Your task to perform on an android device: toggle notifications settings in the gmail app Image 0: 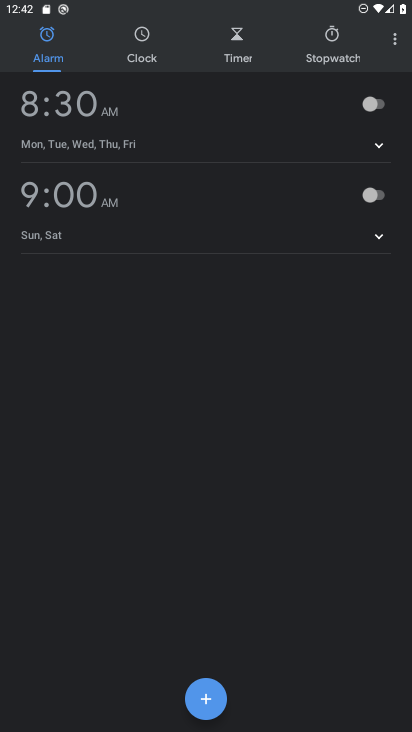
Step 0: press home button
Your task to perform on an android device: toggle notifications settings in the gmail app Image 1: 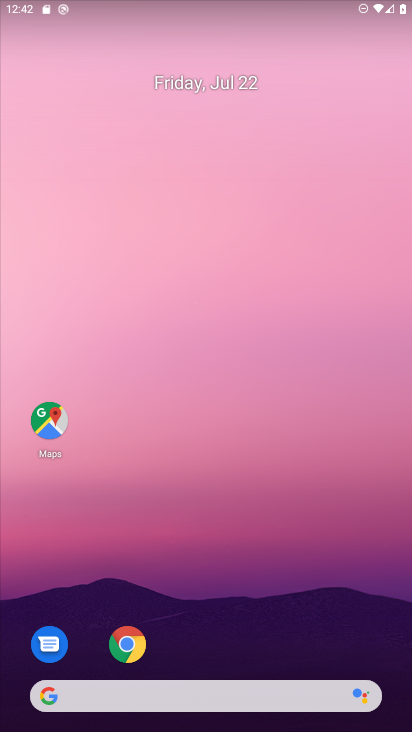
Step 1: drag from (212, 622) to (221, 146)
Your task to perform on an android device: toggle notifications settings in the gmail app Image 2: 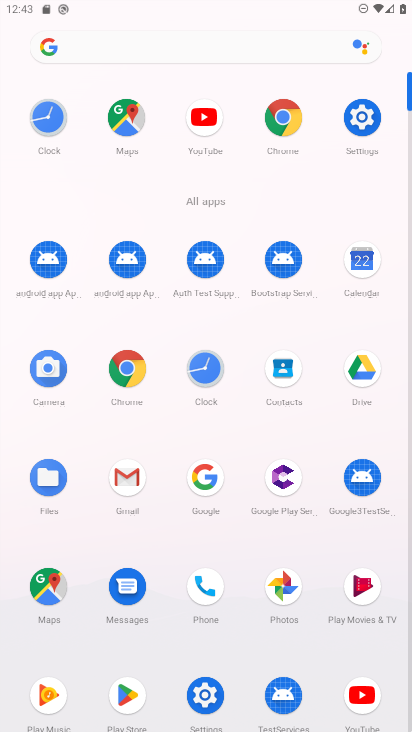
Step 2: click (127, 473)
Your task to perform on an android device: toggle notifications settings in the gmail app Image 3: 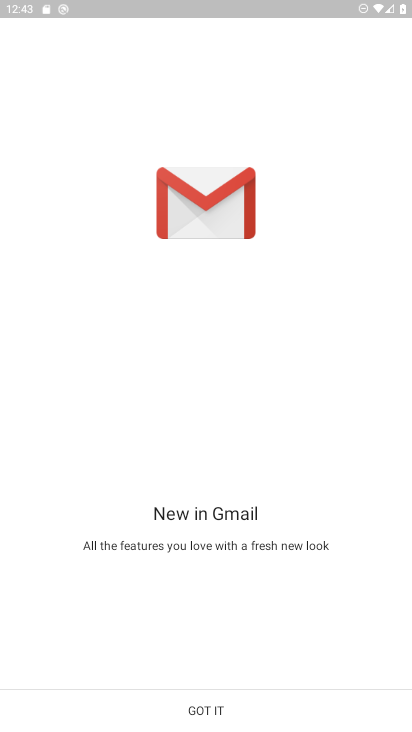
Step 3: click (257, 720)
Your task to perform on an android device: toggle notifications settings in the gmail app Image 4: 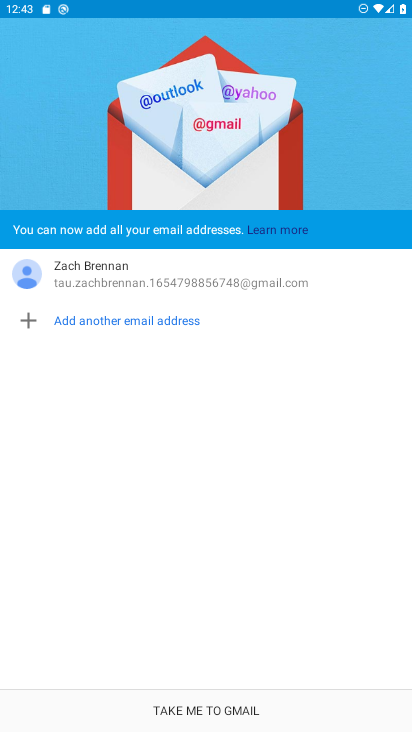
Step 4: click (257, 720)
Your task to perform on an android device: toggle notifications settings in the gmail app Image 5: 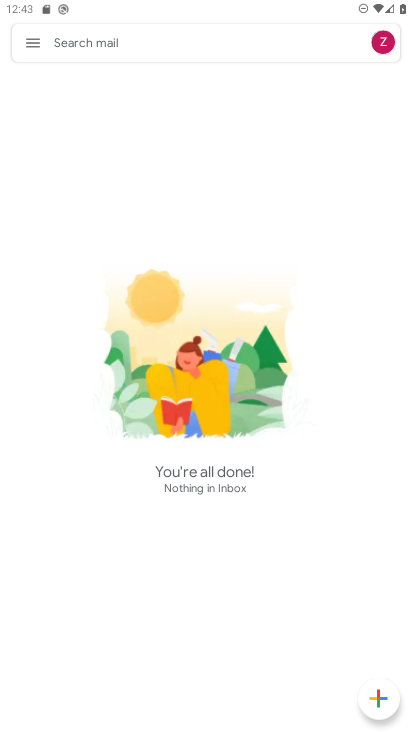
Step 5: click (31, 50)
Your task to perform on an android device: toggle notifications settings in the gmail app Image 6: 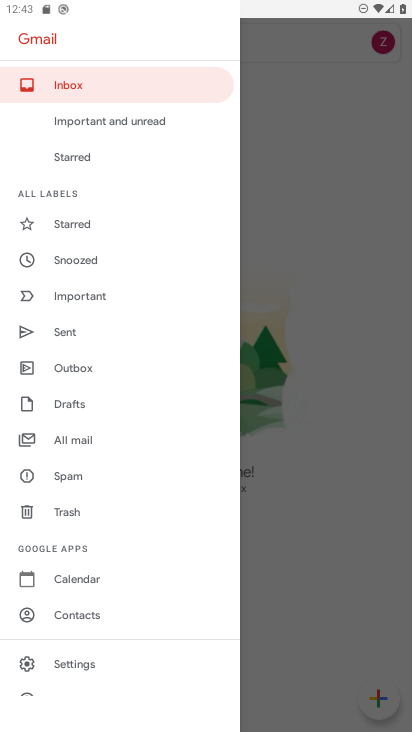
Step 6: click (92, 659)
Your task to perform on an android device: toggle notifications settings in the gmail app Image 7: 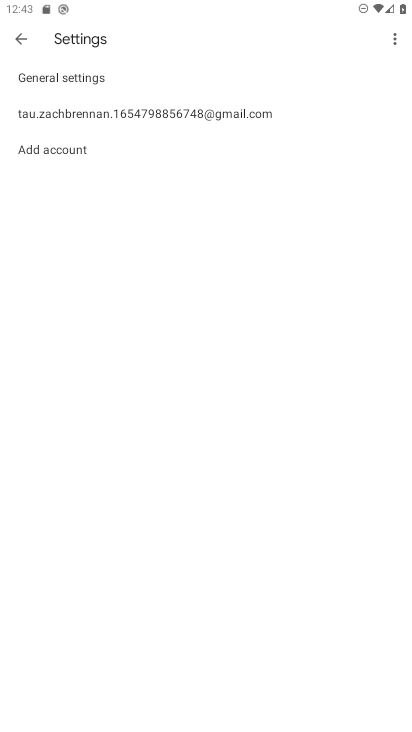
Step 7: click (243, 113)
Your task to perform on an android device: toggle notifications settings in the gmail app Image 8: 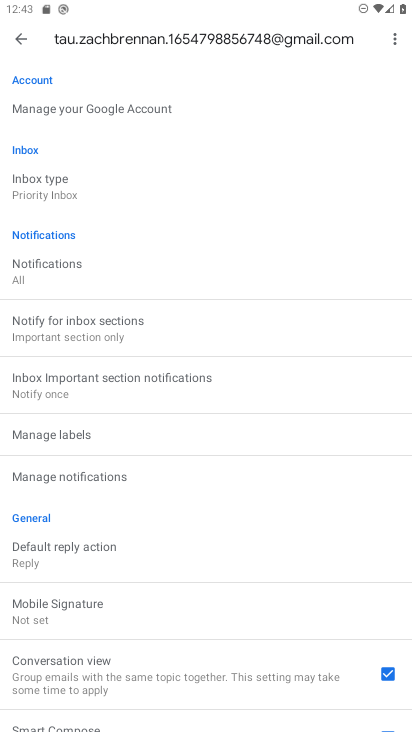
Step 8: click (75, 275)
Your task to perform on an android device: toggle notifications settings in the gmail app Image 9: 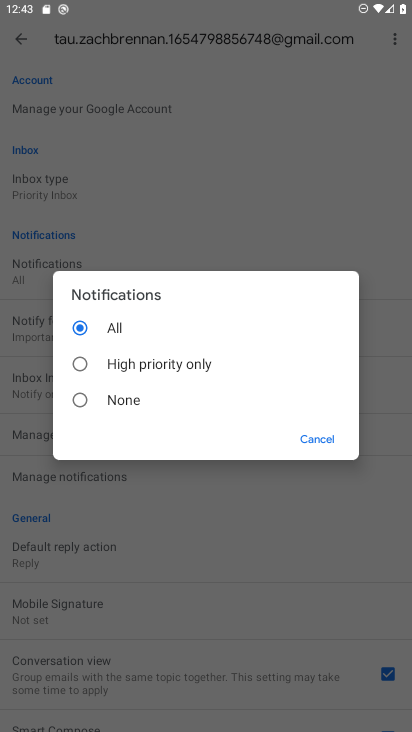
Step 9: click (142, 360)
Your task to perform on an android device: toggle notifications settings in the gmail app Image 10: 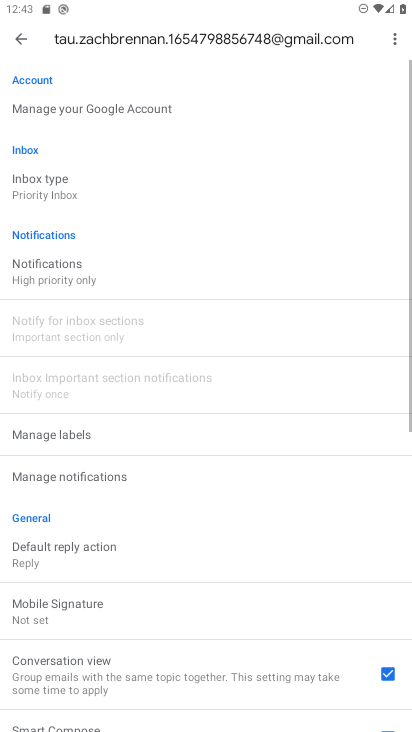
Step 10: task complete